Your task to perform on an android device: show emergency info Image 0: 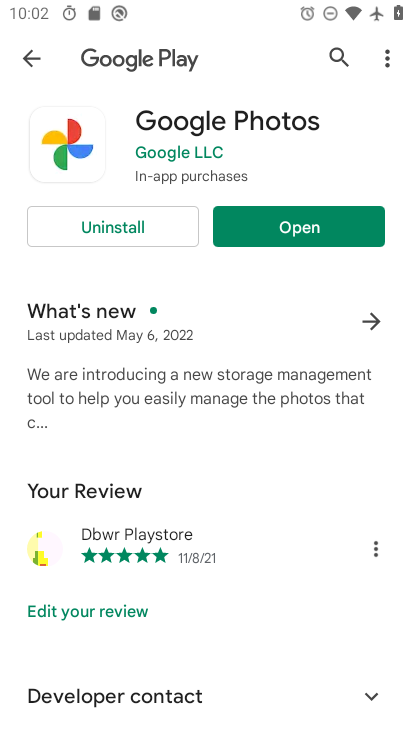
Step 0: press home button
Your task to perform on an android device: show emergency info Image 1: 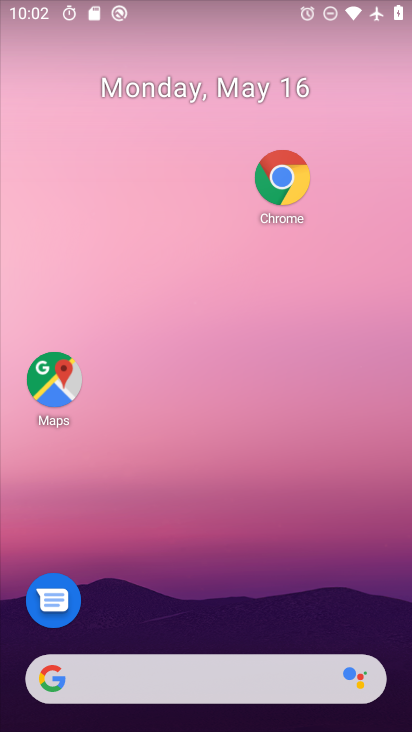
Step 1: drag from (191, 644) to (243, 75)
Your task to perform on an android device: show emergency info Image 2: 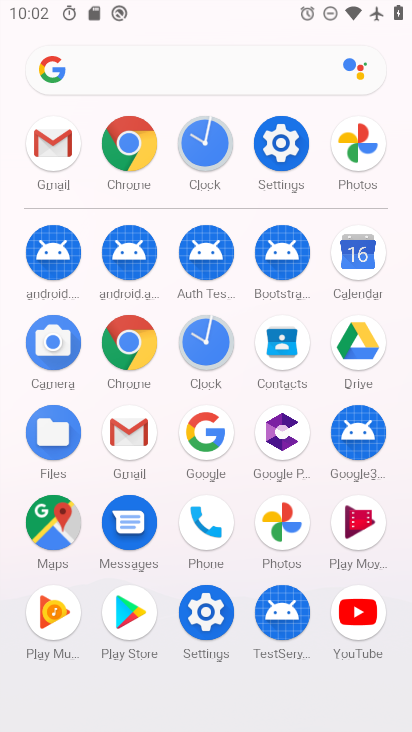
Step 2: click (281, 139)
Your task to perform on an android device: show emergency info Image 3: 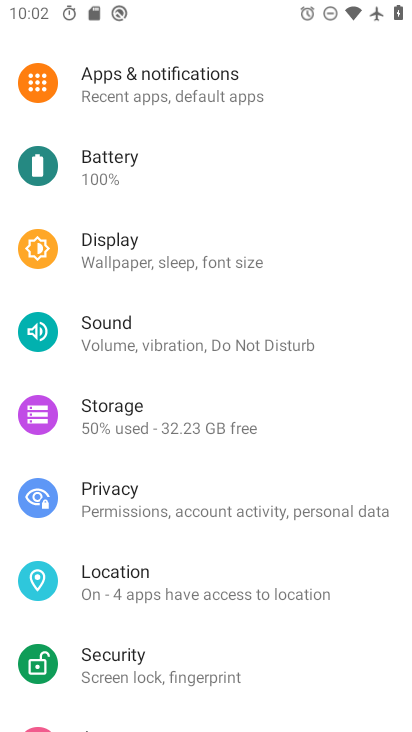
Step 3: drag from (224, 600) to (281, 103)
Your task to perform on an android device: show emergency info Image 4: 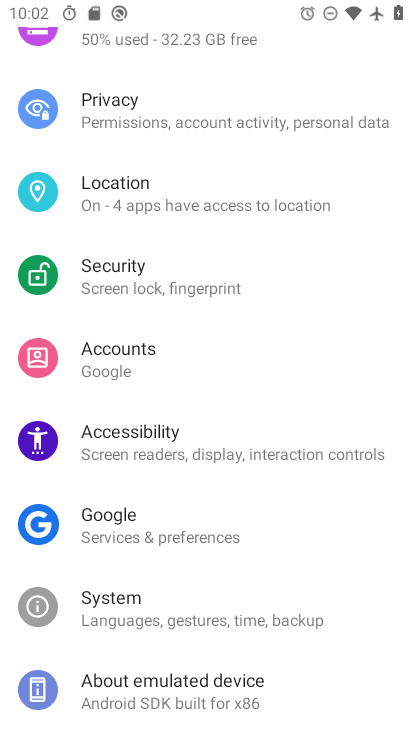
Step 4: click (223, 689)
Your task to perform on an android device: show emergency info Image 5: 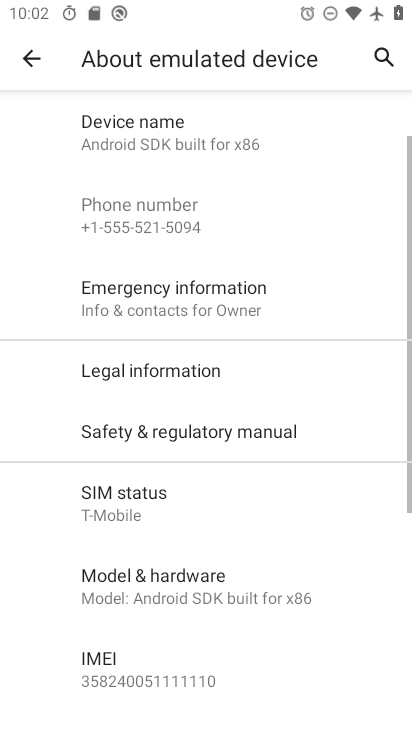
Step 5: click (185, 297)
Your task to perform on an android device: show emergency info Image 6: 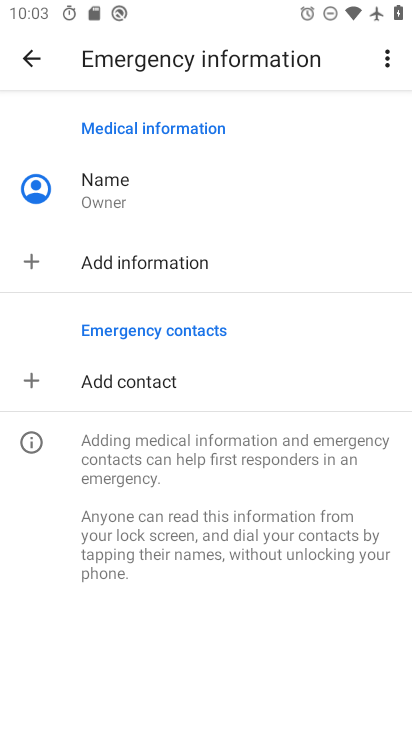
Step 6: task complete